Your task to perform on an android device: Open my contact list Image 0: 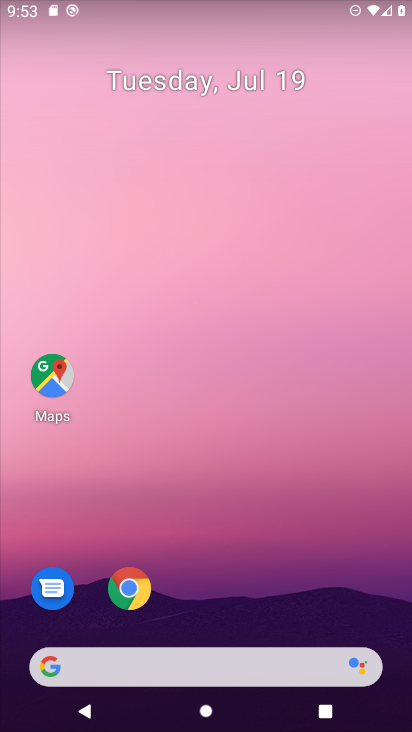
Step 0: drag from (273, 661) to (286, 230)
Your task to perform on an android device: Open my contact list Image 1: 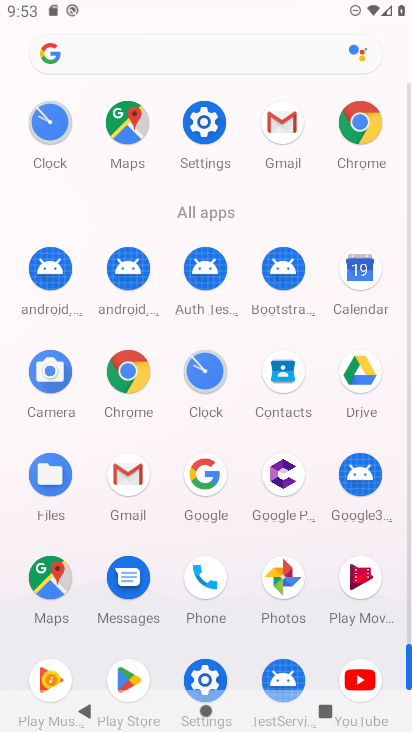
Step 1: click (279, 372)
Your task to perform on an android device: Open my contact list Image 2: 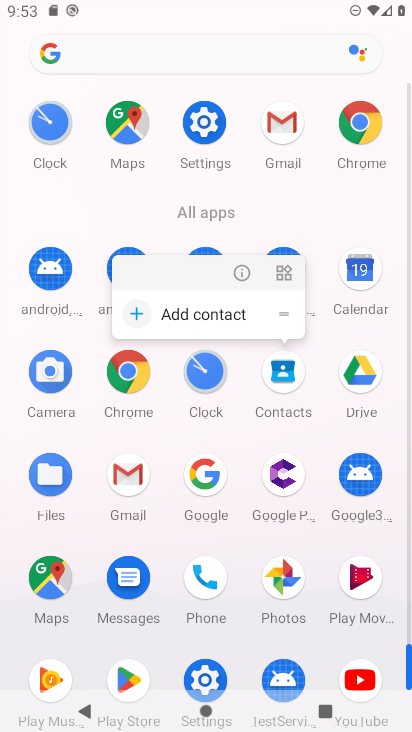
Step 2: click (281, 357)
Your task to perform on an android device: Open my contact list Image 3: 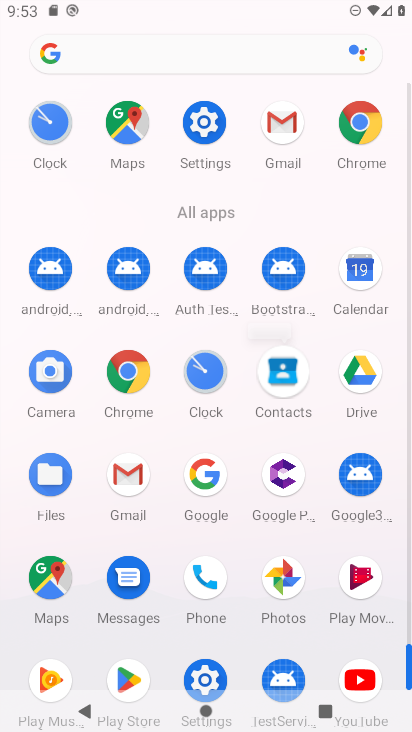
Step 3: click (281, 361)
Your task to perform on an android device: Open my contact list Image 4: 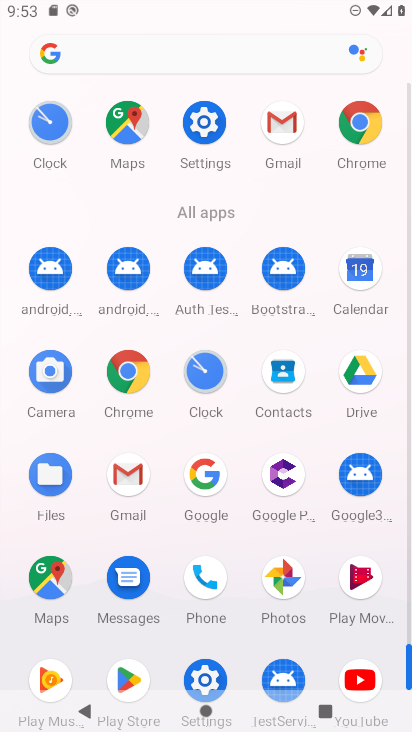
Step 4: click (279, 362)
Your task to perform on an android device: Open my contact list Image 5: 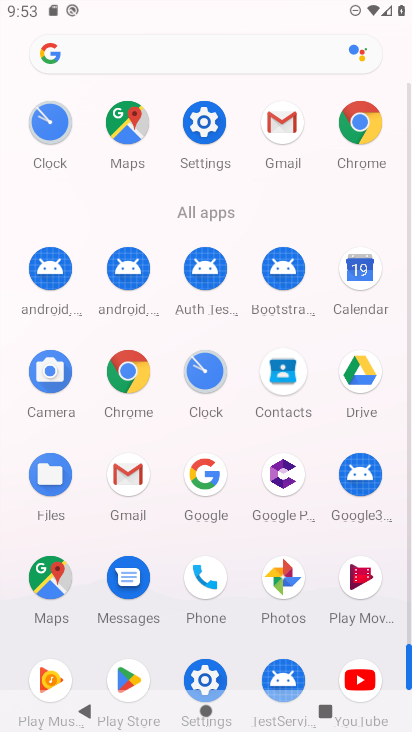
Step 5: click (279, 362)
Your task to perform on an android device: Open my contact list Image 6: 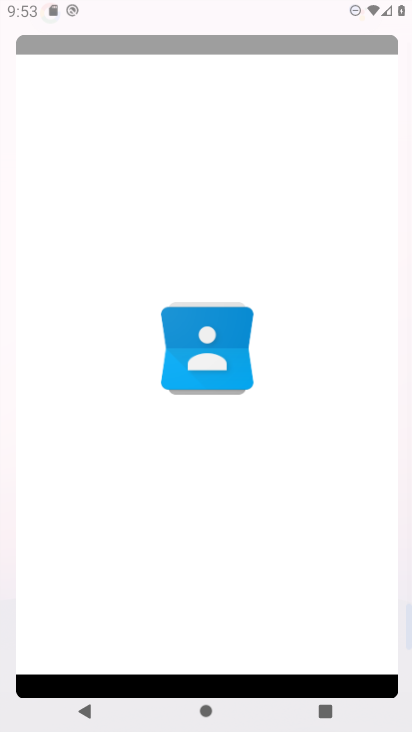
Step 6: click (279, 361)
Your task to perform on an android device: Open my contact list Image 7: 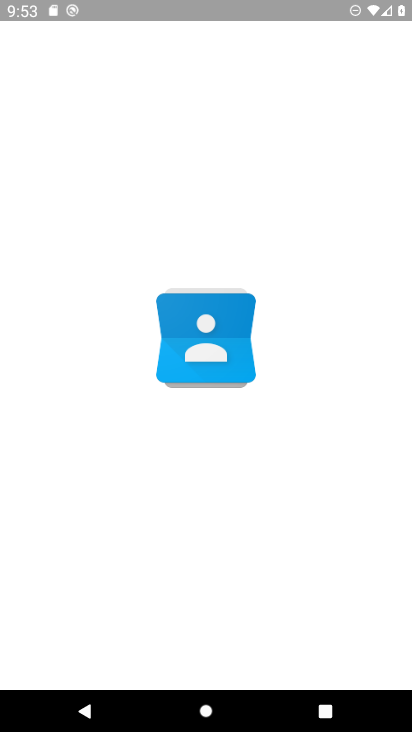
Step 7: click (281, 366)
Your task to perform on an android device: Open my contact list Image 8: 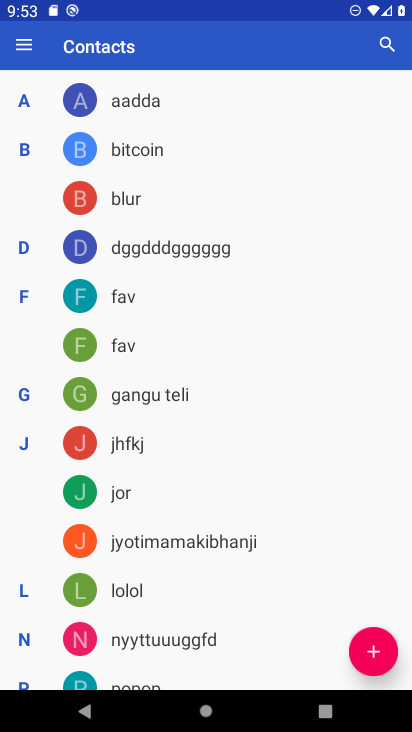
Step 8: task complete